Your task to perform on an android device: check storage Image 0: 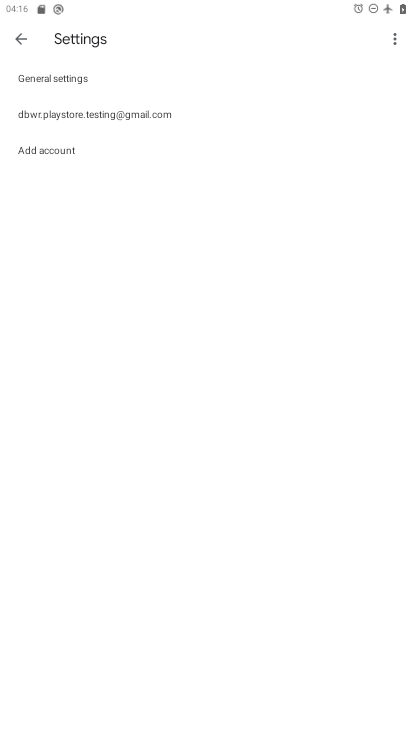
Step 0: press home button
Your task to perform on an android device: check storage Image 1: 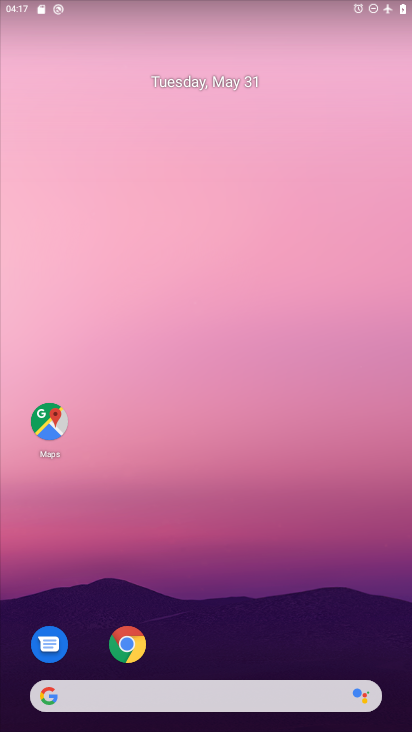
Step 1: drag from (239, 623) to (166, 108)
Your task to perform on an android device: check storage Image 2: 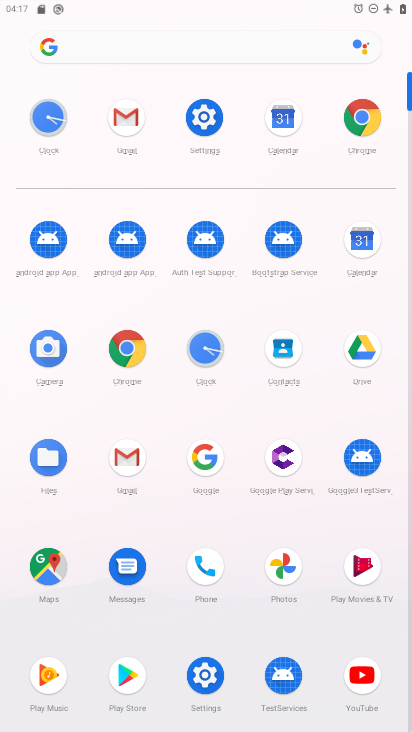
Step 2: click (201, 113)
Your task to perform on an android device: check storage Image 3: 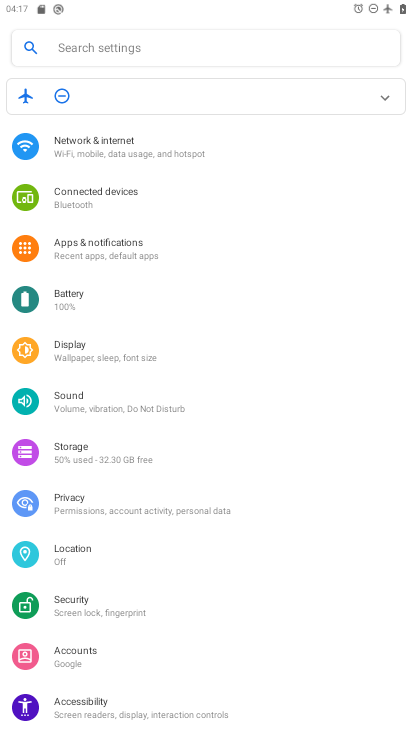
Step 3: click (86, 454)
Your task to perform on an android device: check storage Image 4: 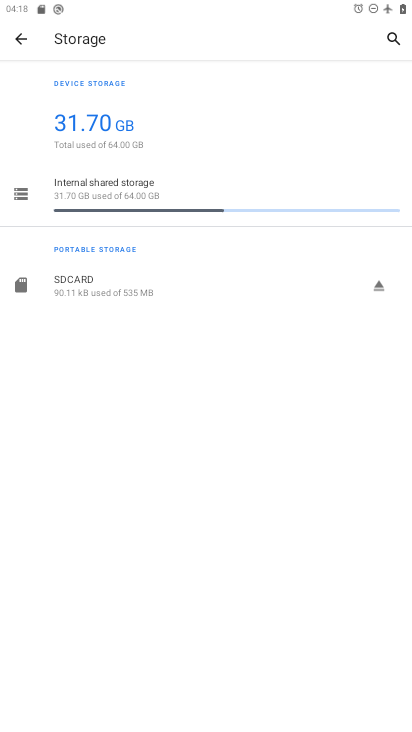
Step 4: task complete